Your task to perform on an android device: stop showing notifications on the lock screen Image 0: 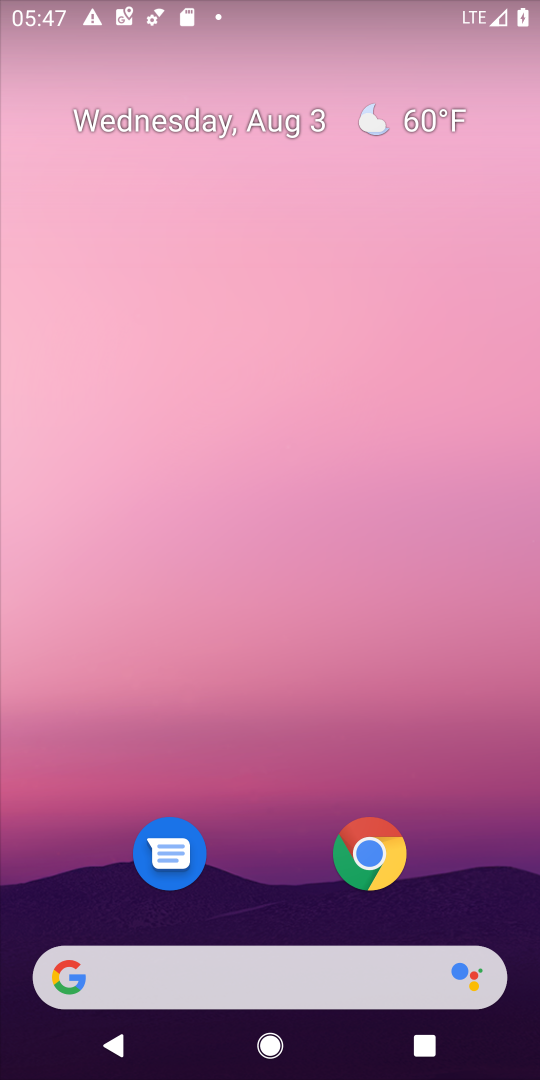
Step 0: drag from (253, 930) to (233, 79)
Your task to perform on an android device: stop showing notifications on the lock screen Image 1: 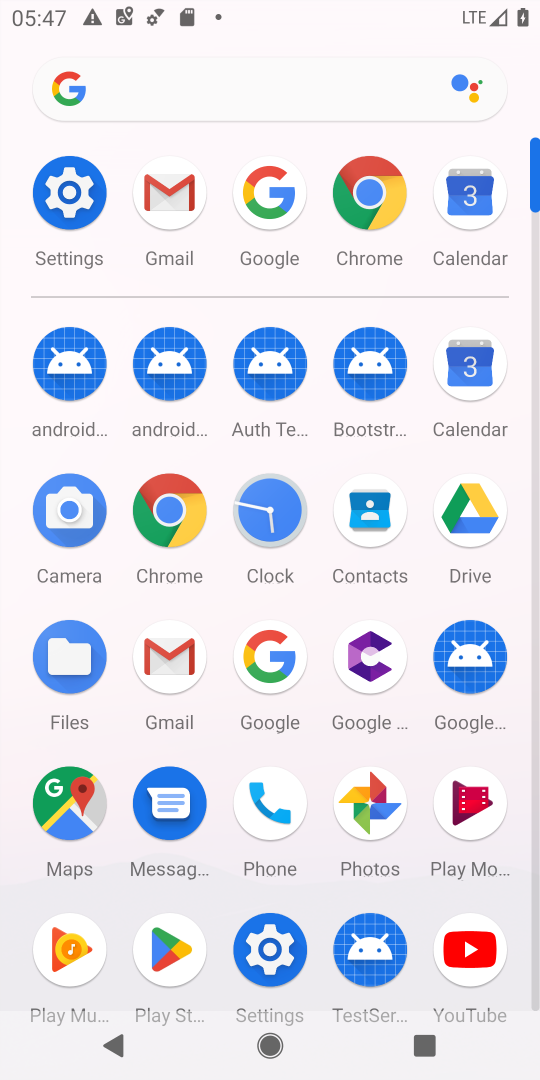
Step 1: click (75, 183)
Your task to perform on an android device: stop showing notifications on the lock screen Image 2: 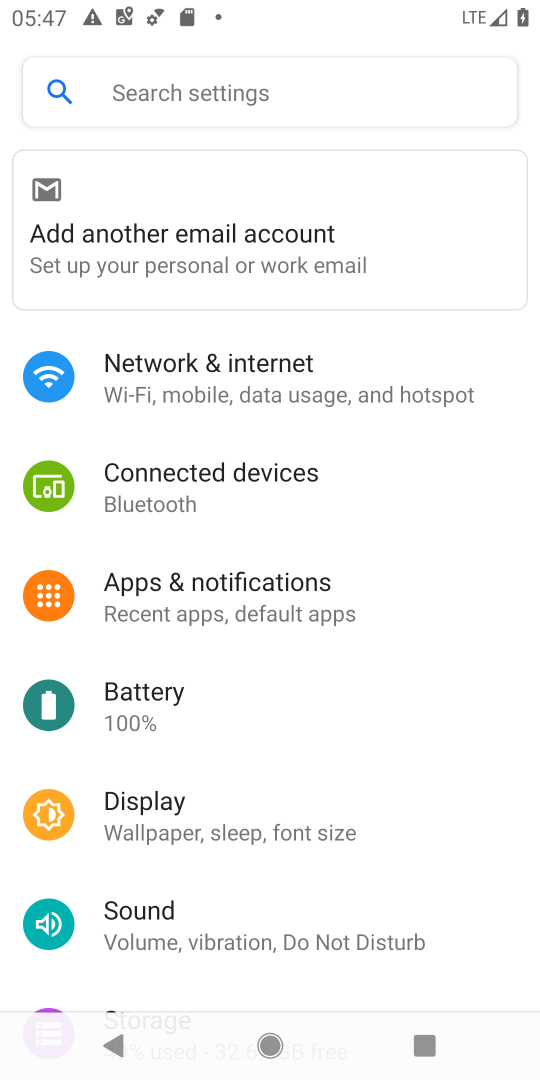
Step 2: click (167, 597)
Your task to perform on an android device: stop showing notifications on the lock screen Image 3: 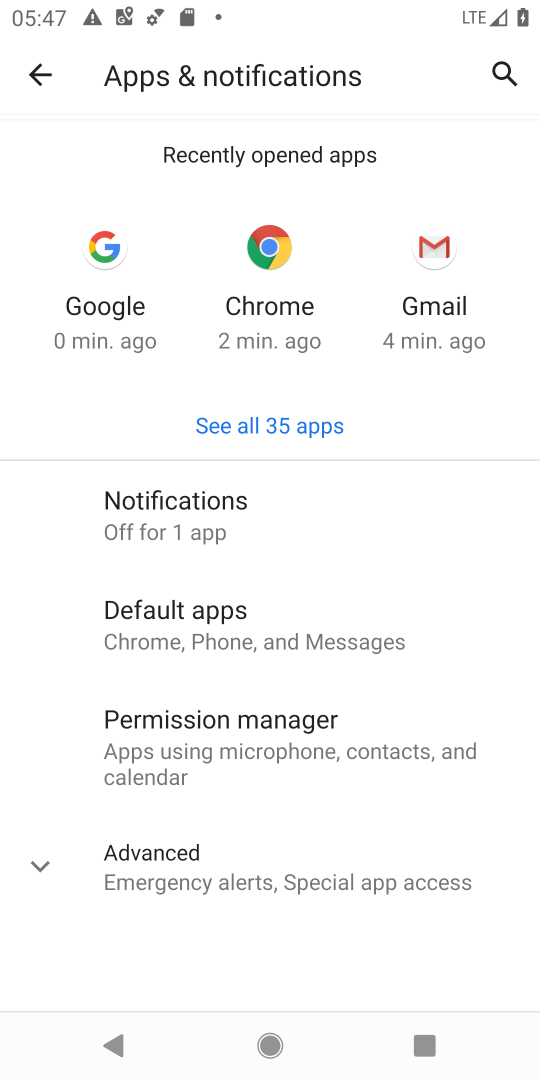
Step 3: click (142, 525)
Your task to perform on an android device: stop showing notifications on the lock screen Image 4: 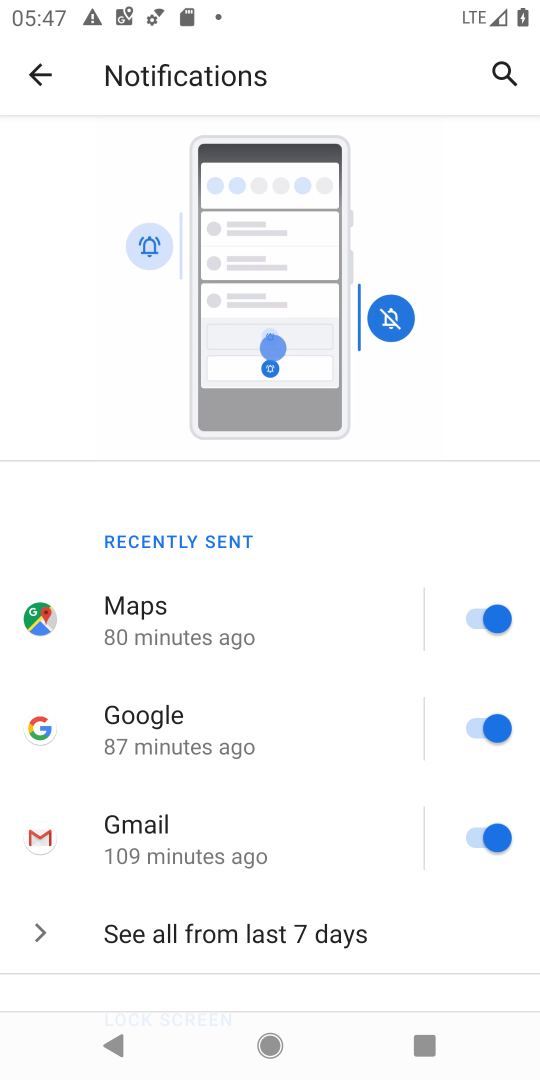
Step 4: drag from (210, 955) to (210, 312)
Your task to perform on an android device: stop showing notifications on the lock screen Image 5: 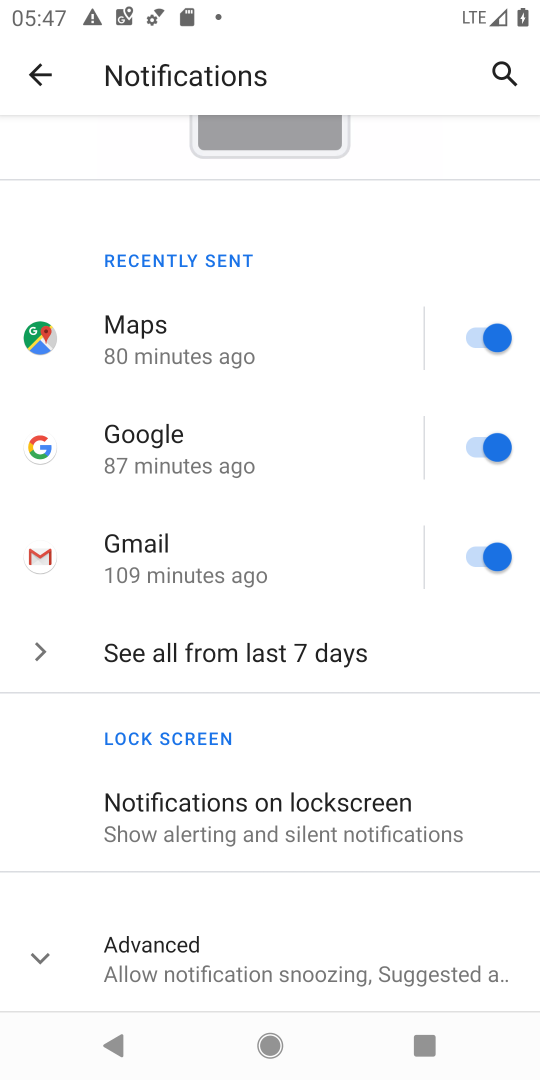
Step 5: click (222, 817)
Your task to perform on an android device: stop showing notifications on the lock screen Image 6: 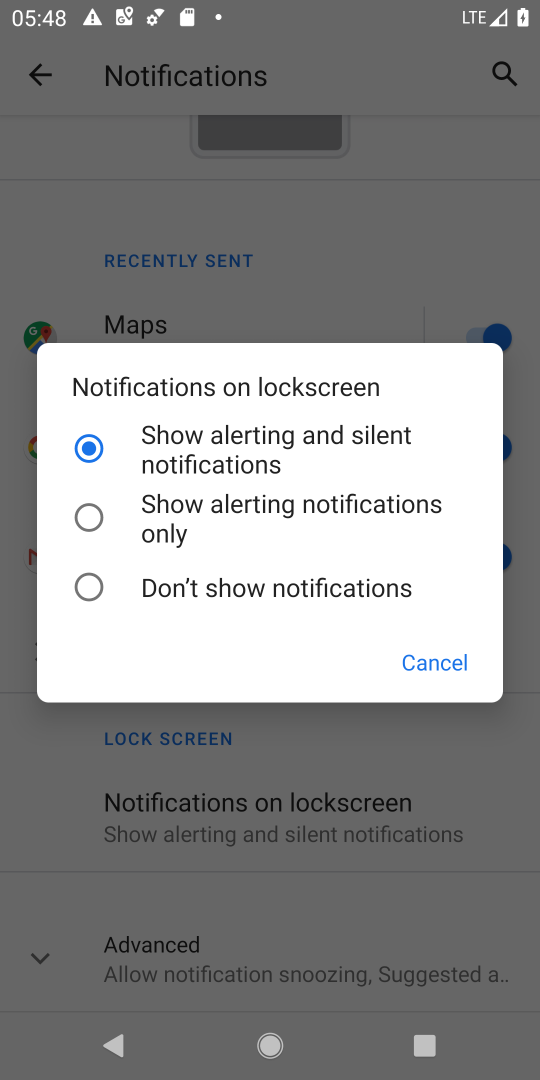
Step 6: click (79, 598)
Your task to perform on an android device: stop showing notifications on the lock screen Image 7: 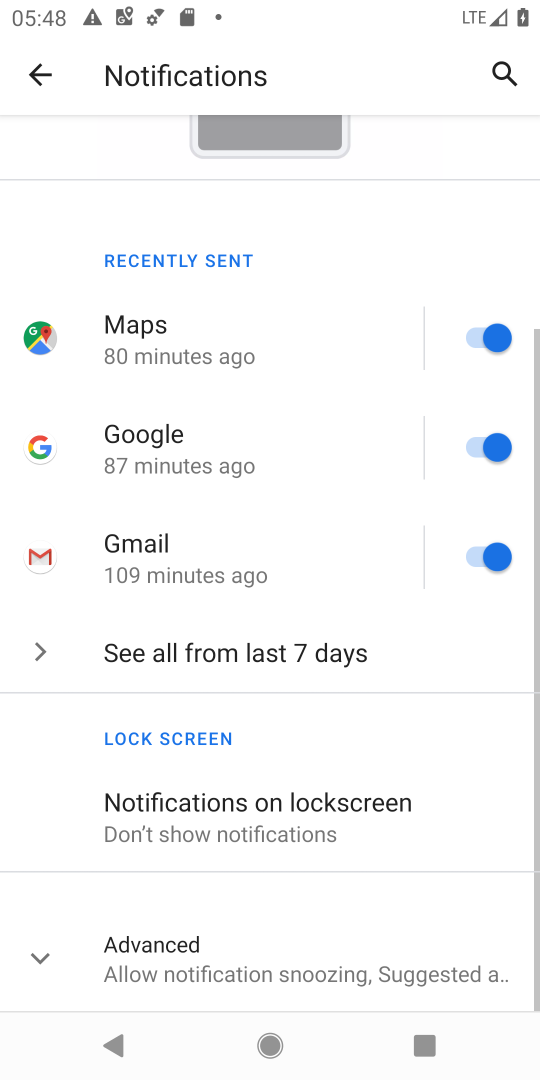
Step 7: task complete